Your task to perform on an android device: toggle sleep mode Image 0: 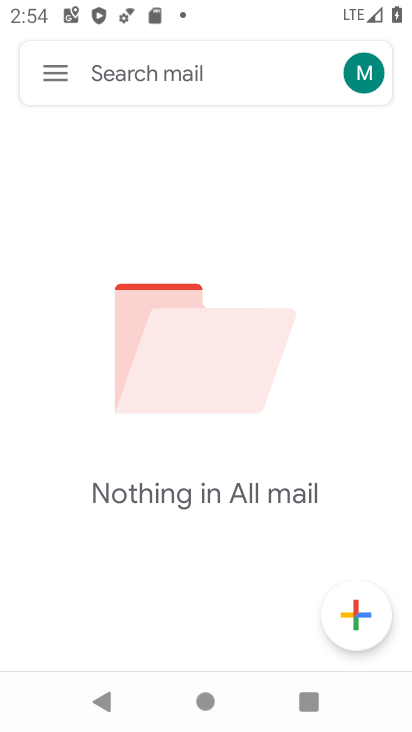
Step 0: press home button
Your task to perform on an android device: toggle sleep mode Image 1: 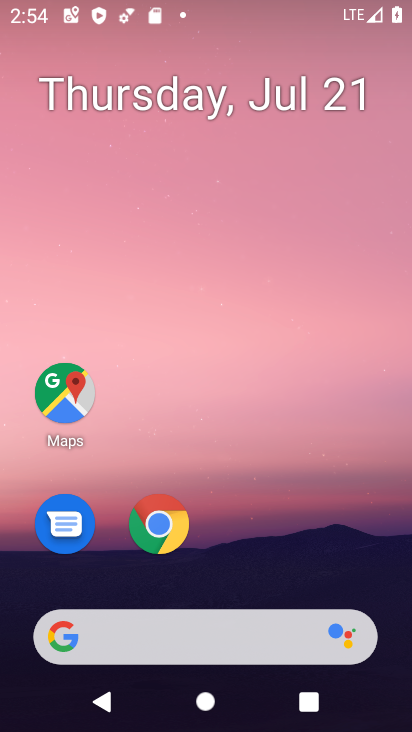
Step 1: drag from (257, 472) to (349, 32)
Your task to perform on an android device: toggle sleep mode Image 2: 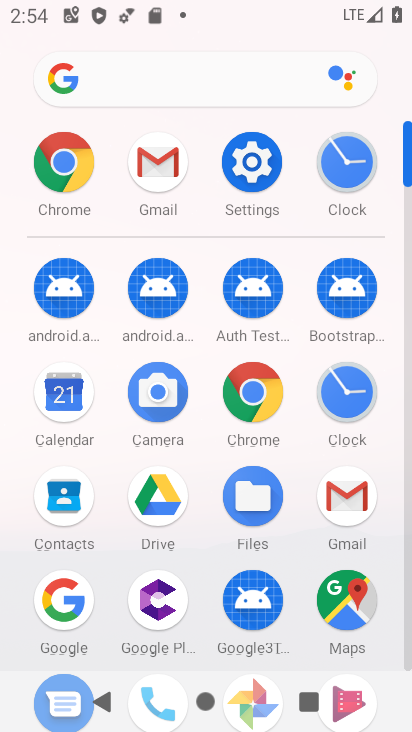
Step 2: click (252, 162)
Your task to perform on an android device: toggle sleep mode Image 3: 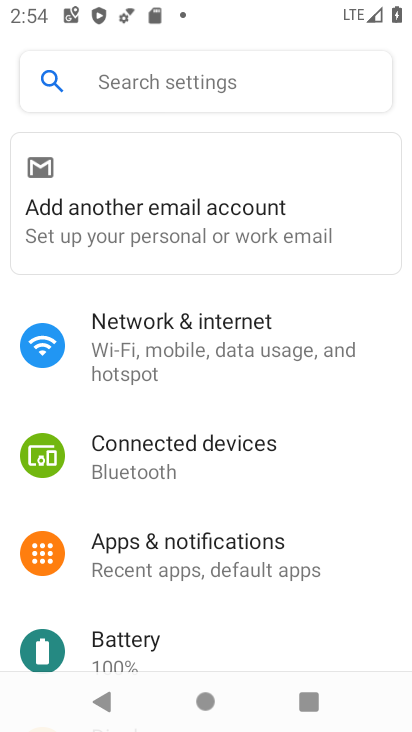
Step 3: drag from (208, 513) to (275, 84)
Your task to perform on an android device: toggle sleep mode Image 4: 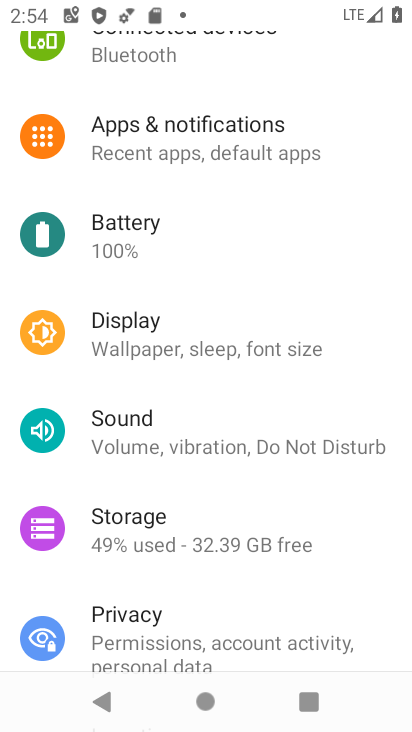
Step 4: click (198, 338)
Your task to perform on an android device: toggle sleep mode Image 5: 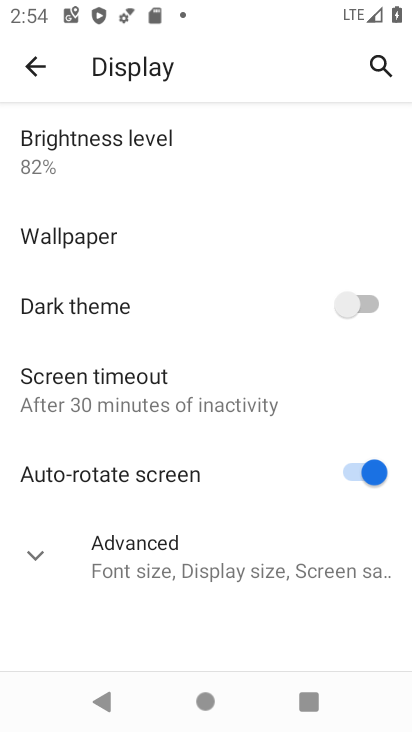
Step 5: click (37, 553)
Your task to perform on an android device: toggle sleep mode Image 6: 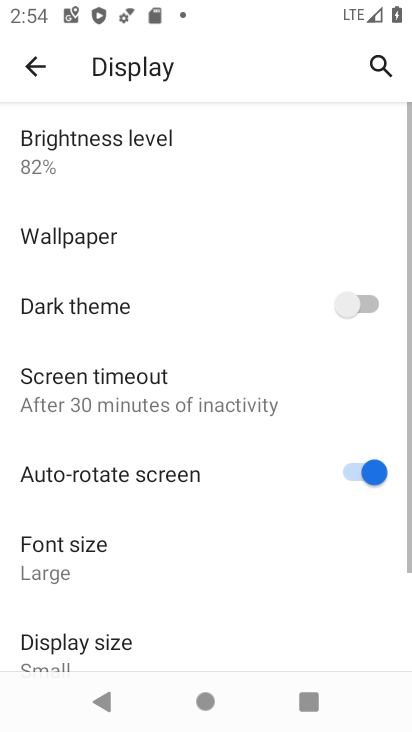
Step 6: task complete